Your task to perform on an android device: Open Wikipedia Image 0: 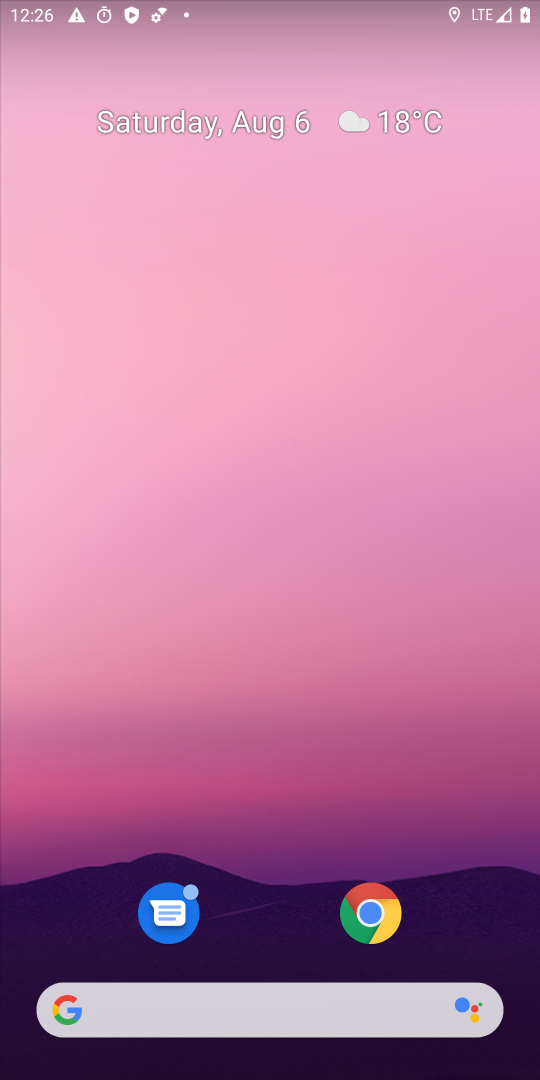
Step 0: press home button
Your task to perform on an android device: Open Wikipedia Image 1: 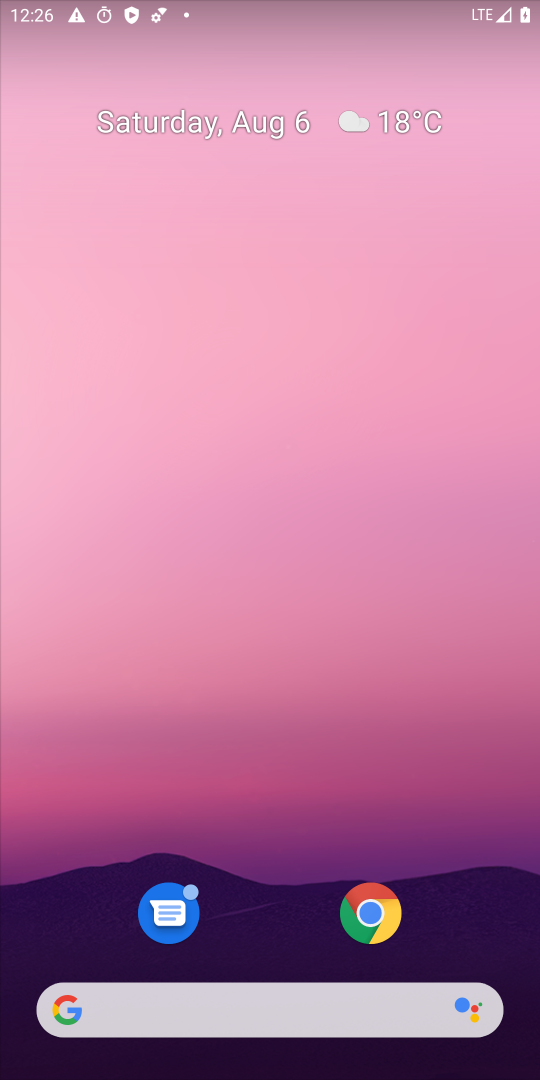
Step 1: drag from (452, 814) to (539, 449)
Your task to perform on an android device: Open Wikipedia Image 2: 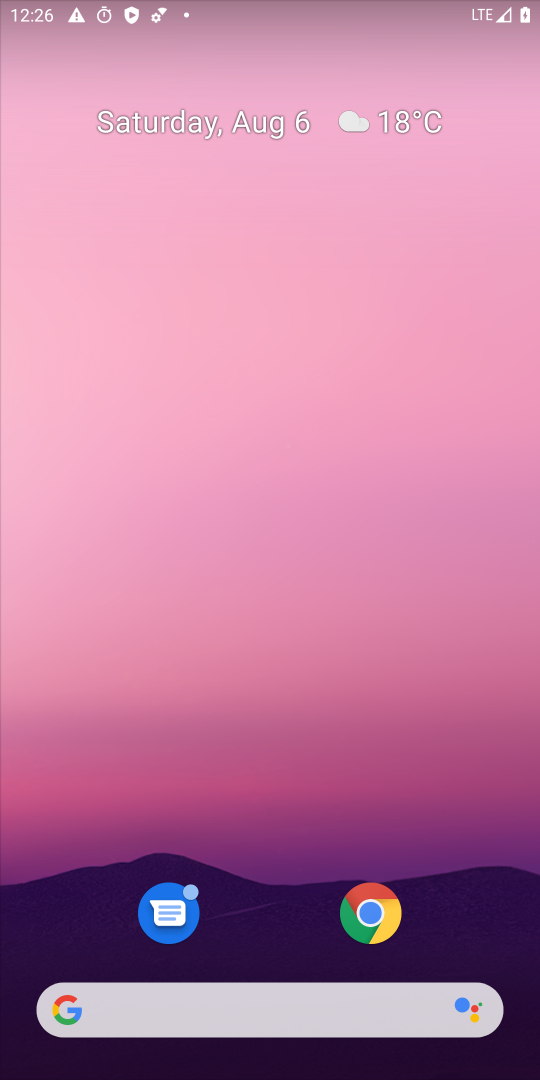
Step 2: drag from (482, 872) to (454, 185)
Your task to perform on an android device: Open Wikipedia Image 3: 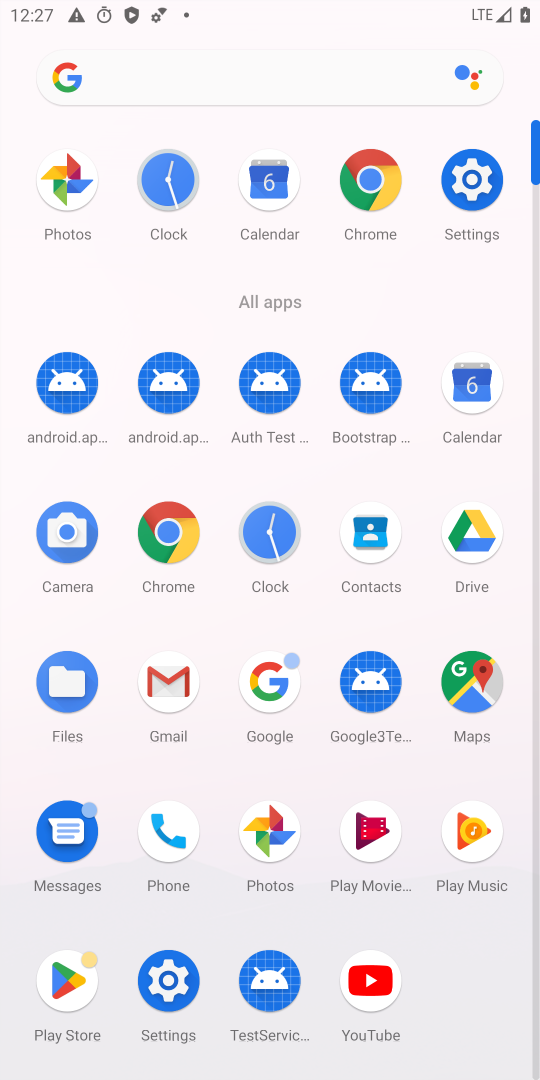
Step 3: click (170, 530)
Your task to perform on an android device: Open Wikipedia Image 4: 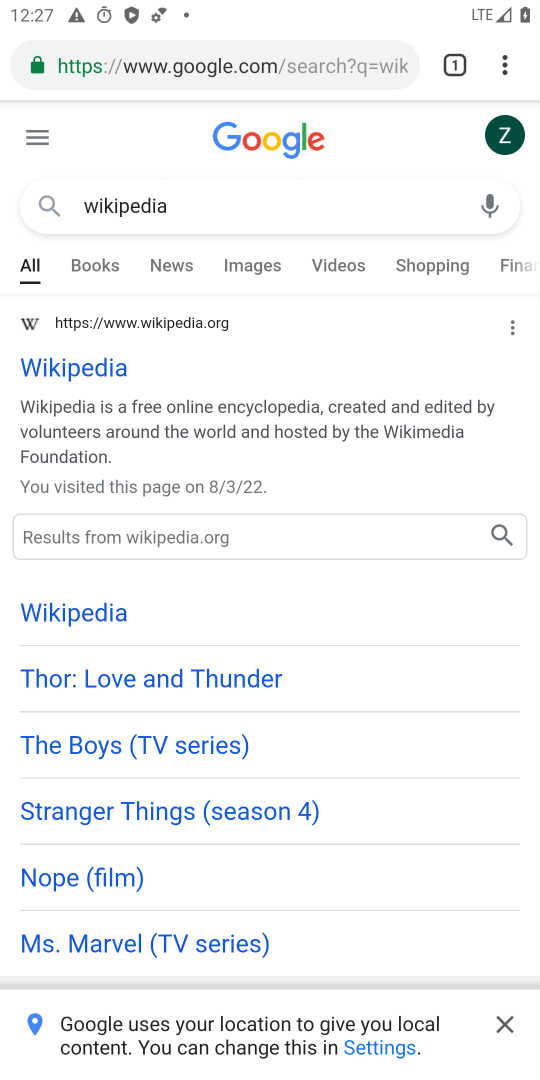
Step 4: click (170, 530)
Your task to perform on an android device: Open Wikipedia Image 5: 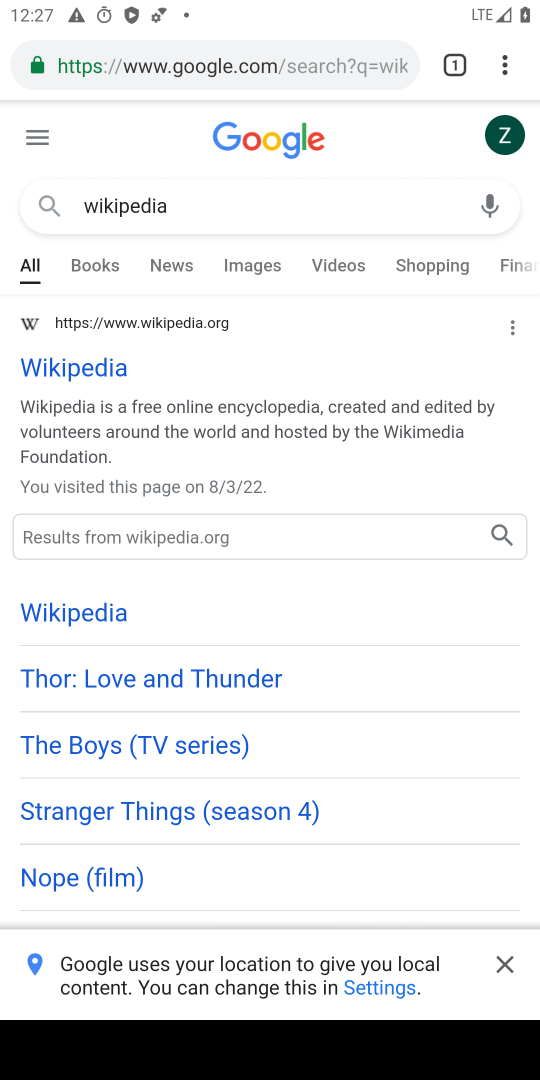
Step 5: click (333, 67)
Your task to perform on an android device: Open Wikipedia Image 6: 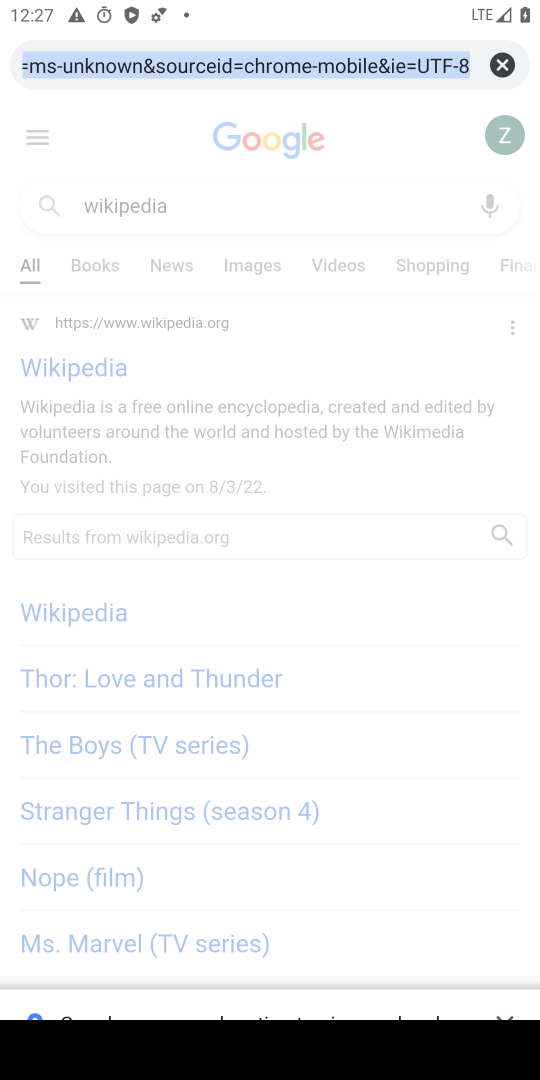
Step 6: type "wikipeda"
Your task to perform on an android device: Open Wikipedia Image 7: 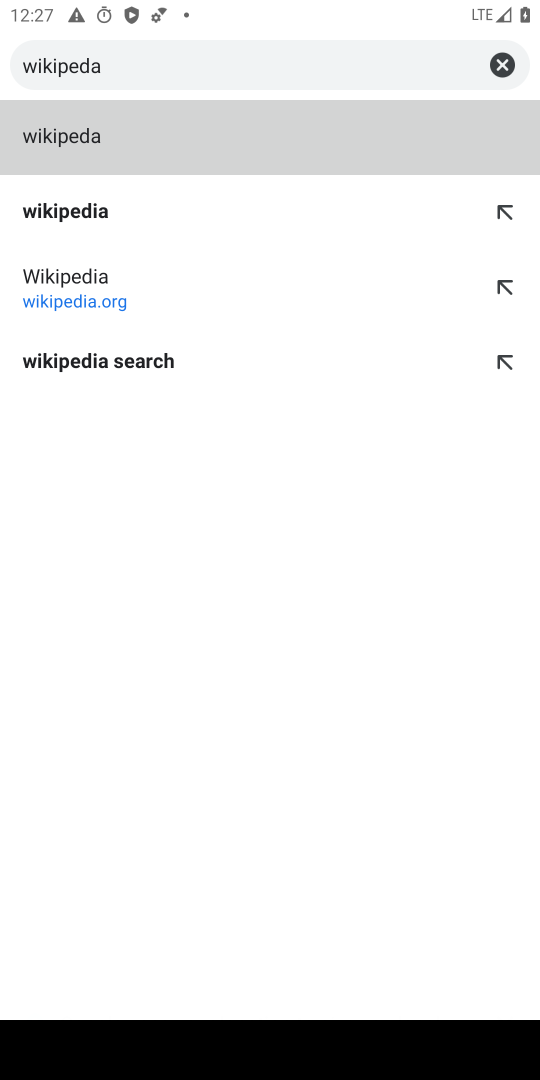
Step 7: click (98, 228)
Your task to perform on an android device: Open Wikipedia Image 8: 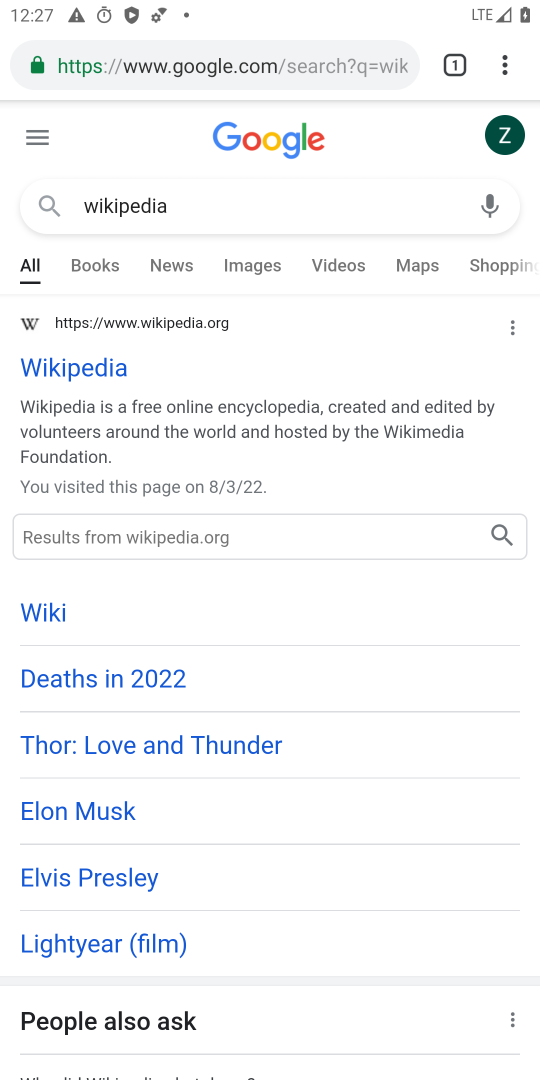
Step 8: task complete